Your task to perform on an android device: Set an alarm for 8am Image 0: 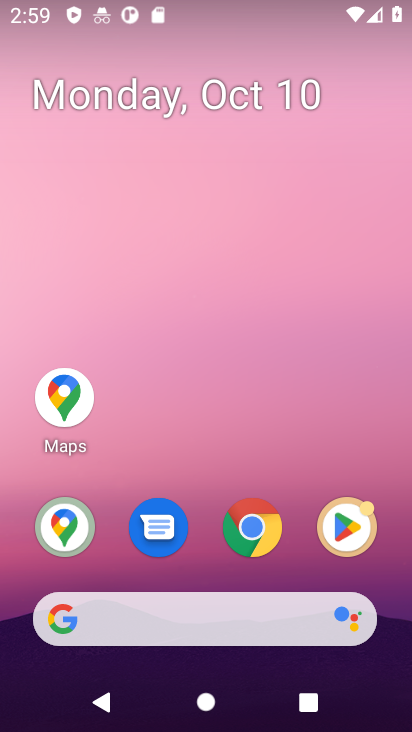
Step 0: drag from (172, 630) to (247, 47)
Your task to perform on an android device: Set an alarm for 8am Image 1: 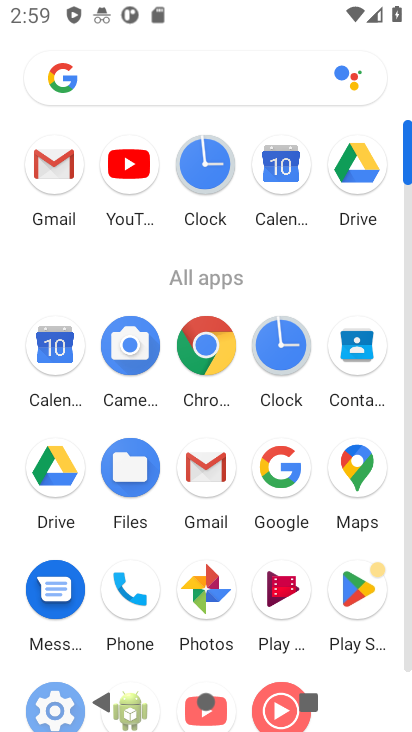
Step 1: click (281, 347)
Your task to perform on an android device: Set an alarm for 8am Image 2: 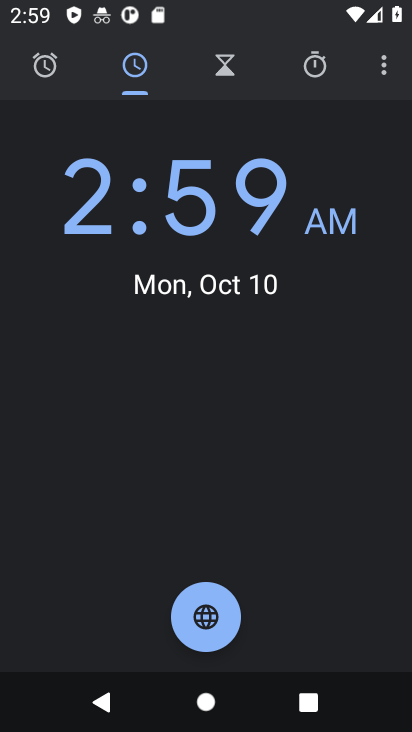
Step 2: click (49, 68)
Your task to perform on an android device: Set an alarm for 8am Image 3: 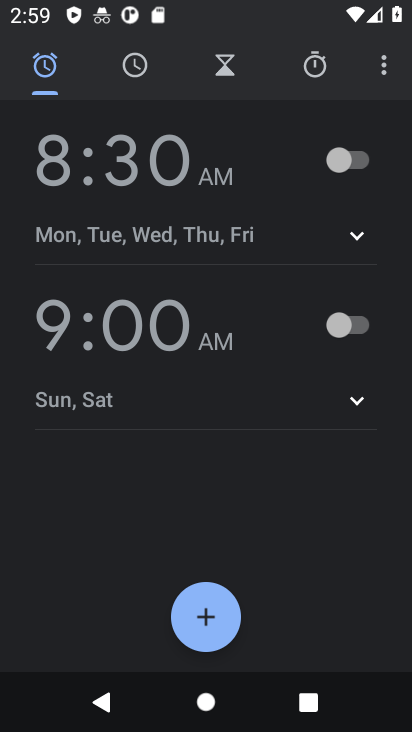
Step 3: click (207, 614)
Your task to perform on an android device: Set an alarm for 8am Image 4: 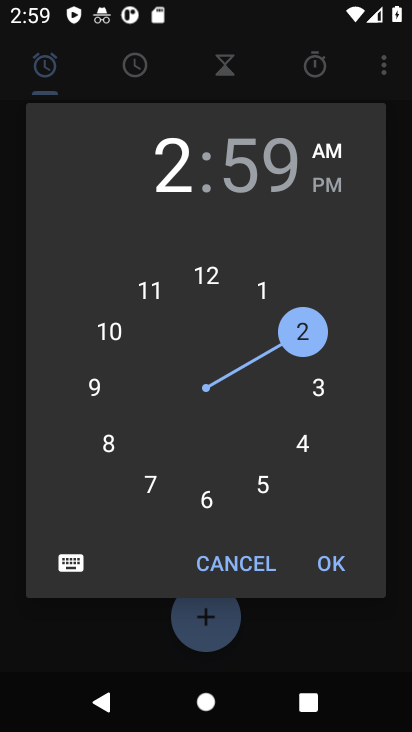
Step 4: click (108, 448)
Your task to perform on an android device: Set an alarm for 8am Image 5: 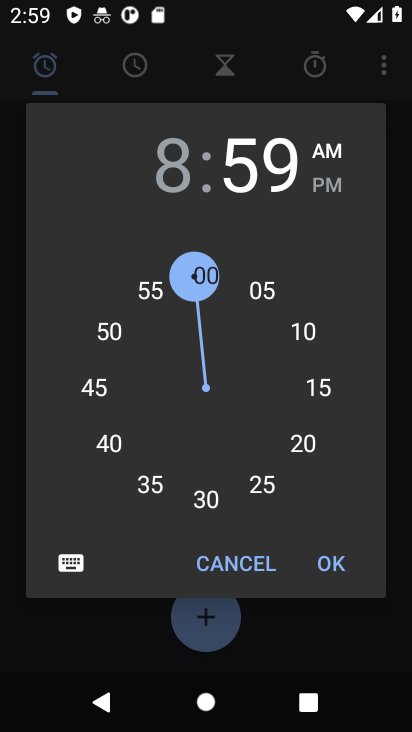
Step 5: click (205, 286)
Your task to perform on an android device: Set an alarm for 8am Image 6: 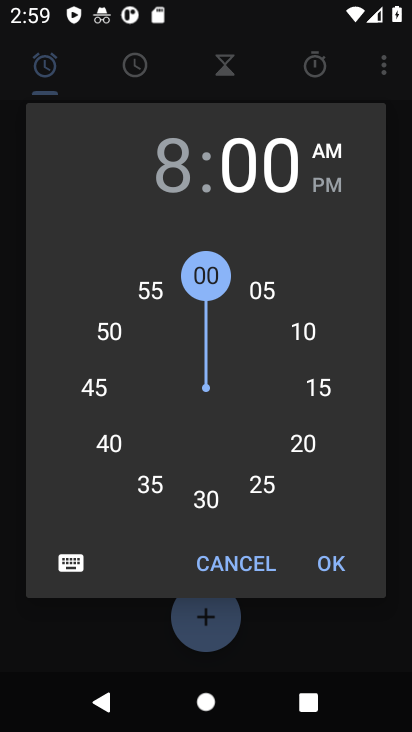
Step 6: click (338, 566)
Your task to perform on an android device: Set an alarm for 8am Image 7: 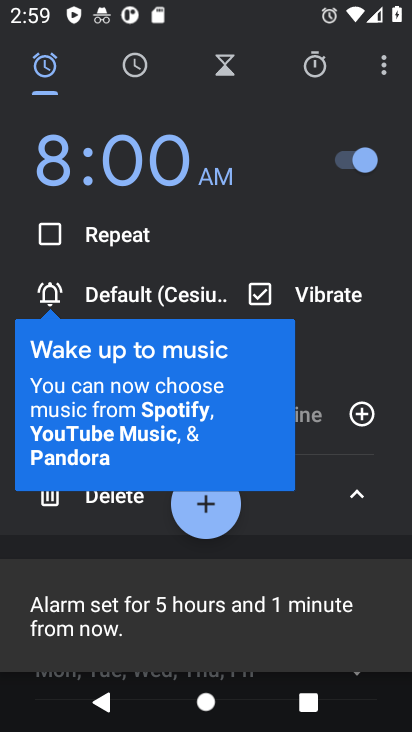
Step 7: click (353, 492)
Your task to perform on an android device: Set an alarm for 8am Image 8: 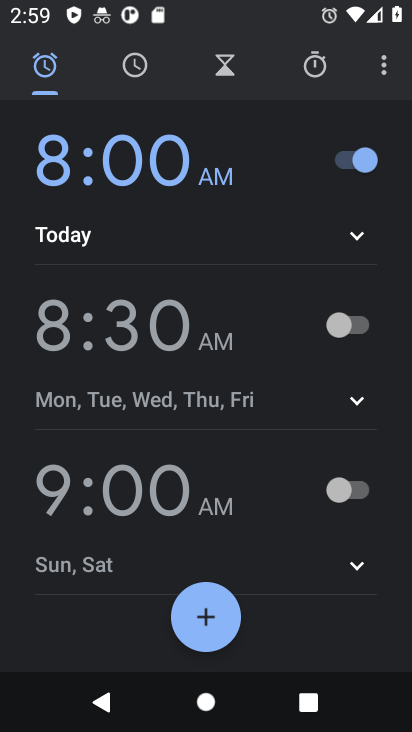
Step 8: task complete